Your task to perform on an android device: toggle priority inbox in the gmail app Image 0: 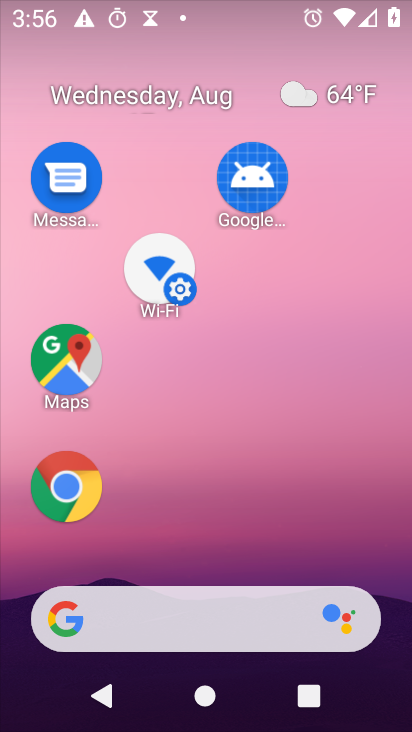
Step 0: press home button
Your task to perform on an android device: toggle priority inbox in the gmail app Image 1: 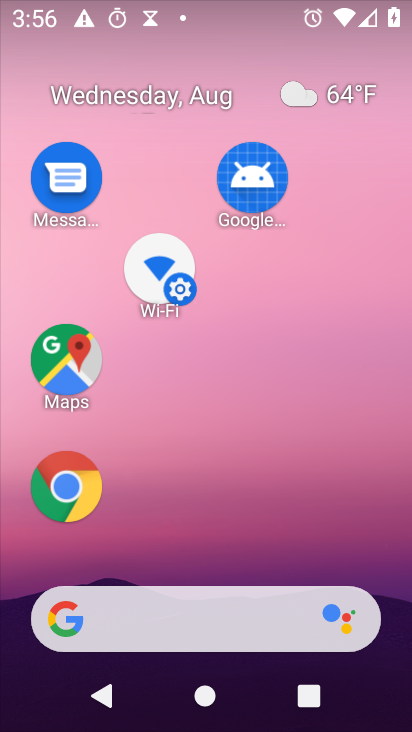
Step 1: drag from (233, 556) to (215, 8)
Your task to perform on an android device: toggle priority inbox in the gmail app Image 2: 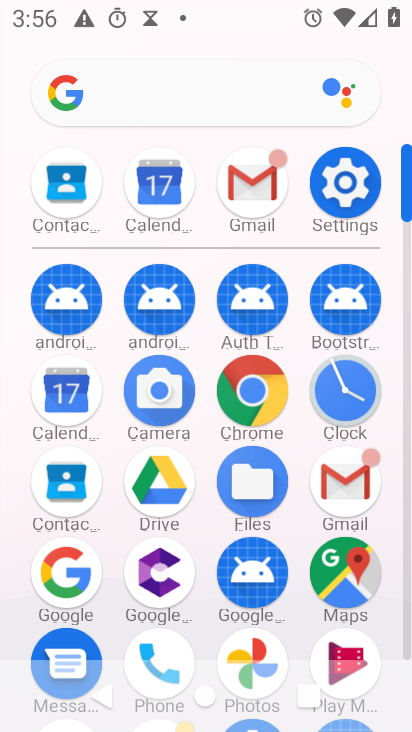
Step 2: click (259, 182)
Your task to perform on an android device: toggle priority inbox in the gmail app Image 3: 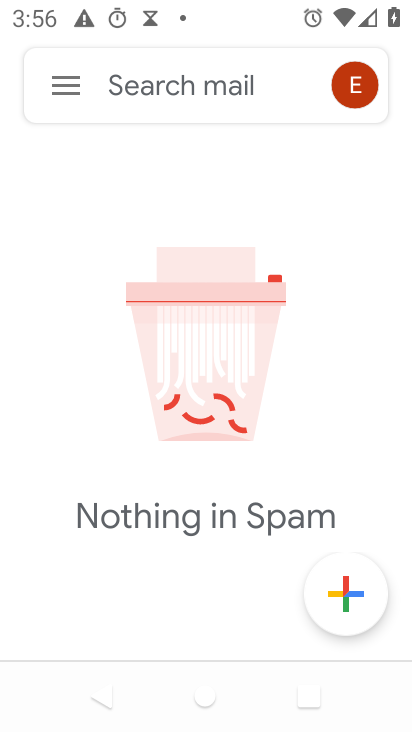
Step 3: click (59, 81)
Your task to perform on an android device: toggle priority inbox in the gmail app Image 4: 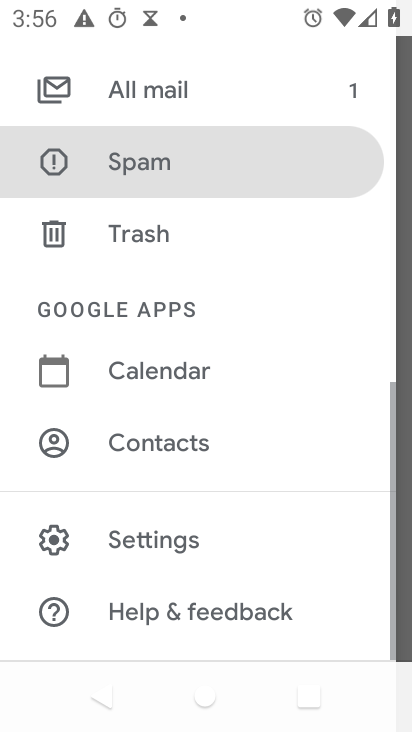
Step 4: click (129, 552)
Your task to perform on an android device: toggle priority inbox in the gmail app Image 5: 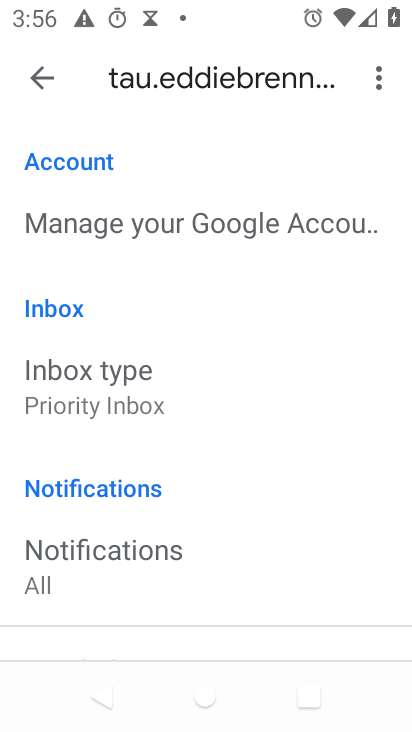
Step 5: click (71, 395)
Your task to perform on an android device: toggle priority inbox in the gmail app Image 6: 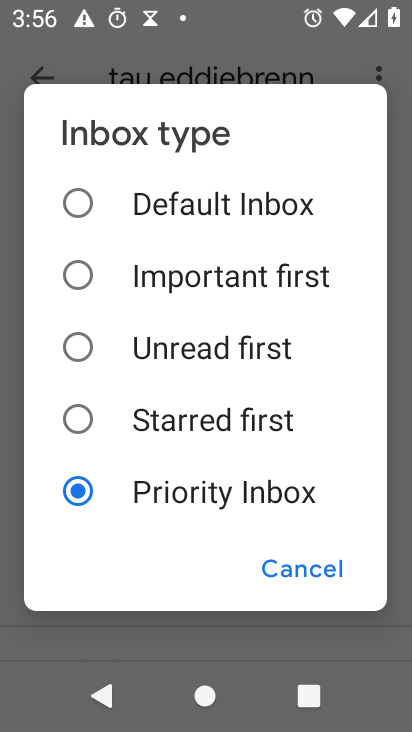
Step 6: click (85, 201)
Your task to perform on an android device: toggle priority inbox in the gmail app Image 7: 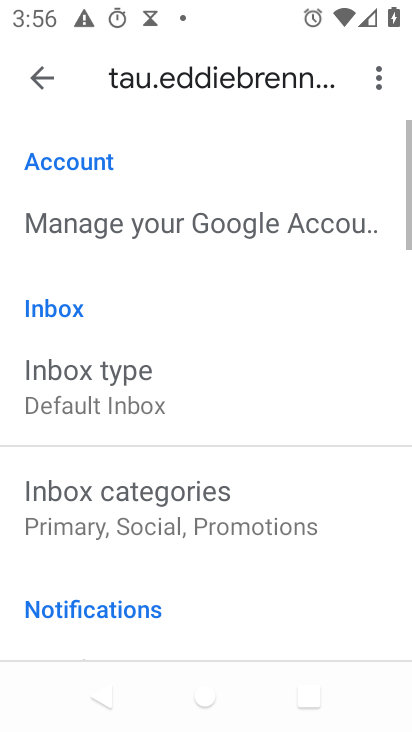
Step 7: task complete